Your task to perform on an android device: set the stopwatch Image 0: 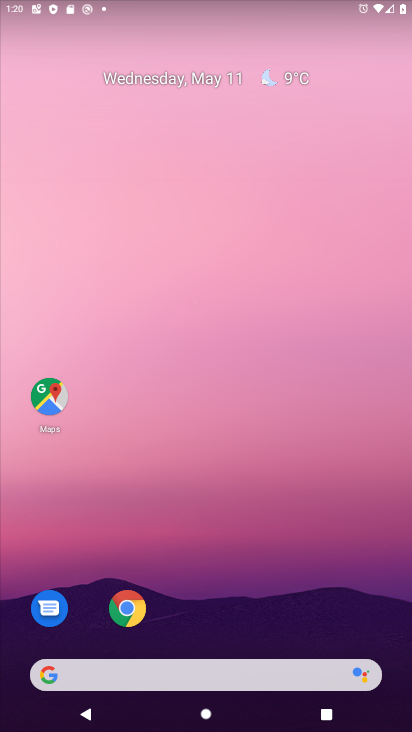
Step 0: drag from (227, 675) to (63, 295)
Your task to perform on an android device: set the stopwatch Image 1: 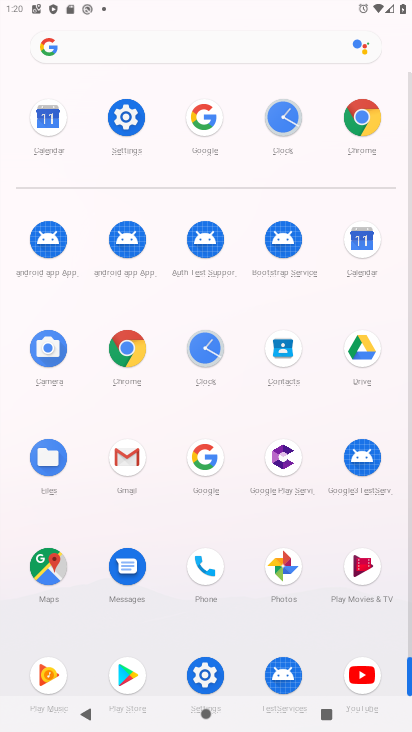
Step 1: click (207, 371)
Your task to perform on an android device: set the stopwatch Image 2: 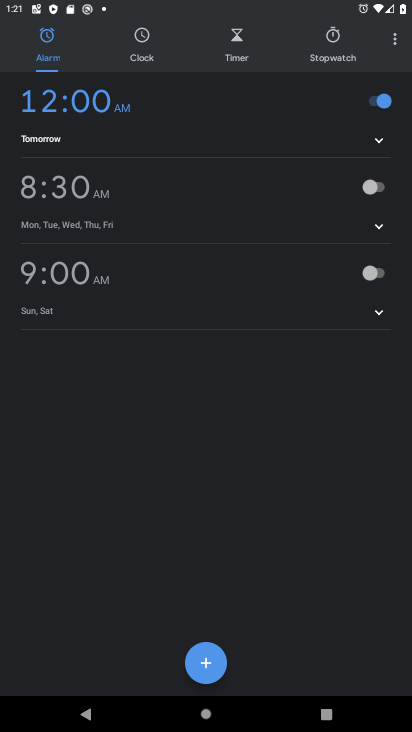
Step 2: click (338, 43)
Your task to perform on an android device: set the stopwatch Image 3: 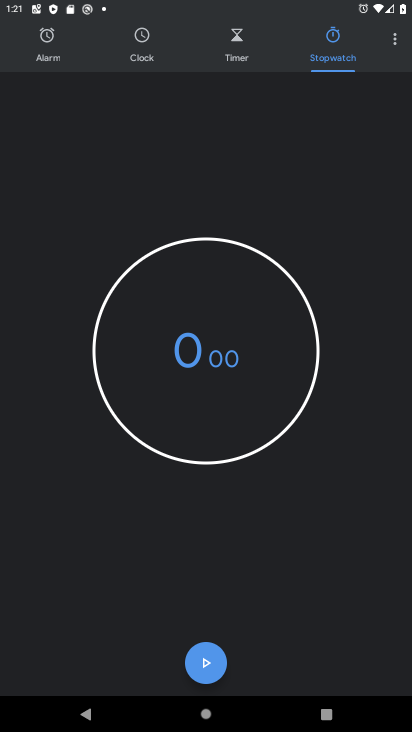
Step 3: click (206, 664)
Your task to perform on an android device: set the stopwatch Image 4: 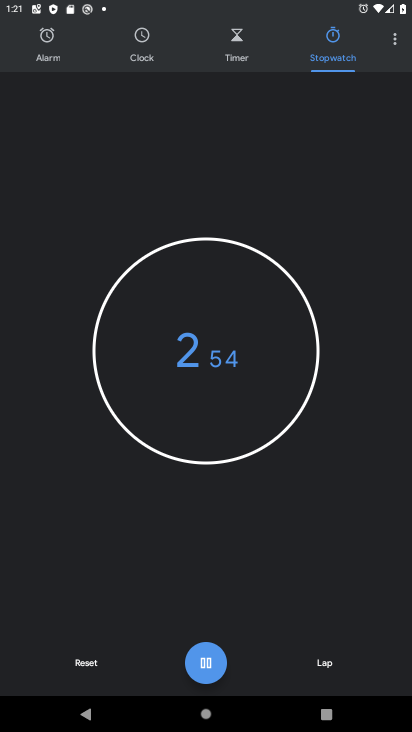
Step 4: click (206, 664)
Your task to perform on an android device: set the stopwatch Image 5: 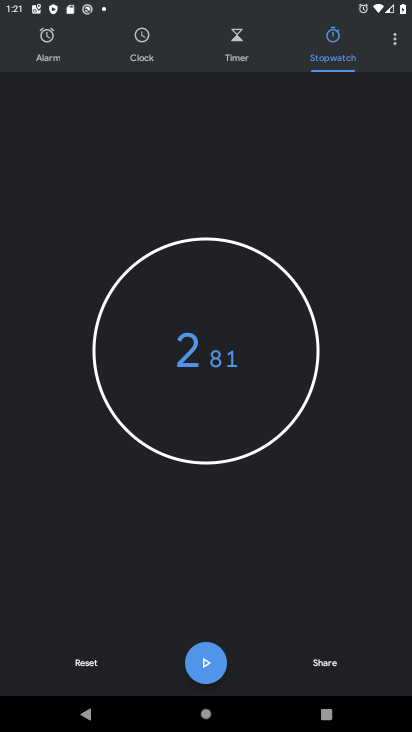
Step 5: task complete